Your task to perform on an android device: Open the calendar app, open the side menu, and click the "Day" option Image 0: 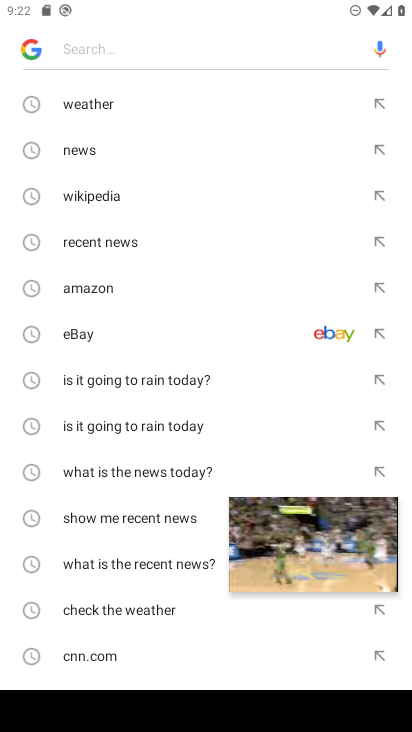
Step 0: press home button
Your task to perform on an android device: Open the calendar app, open the side menu, and click the "Day" option Image 1: 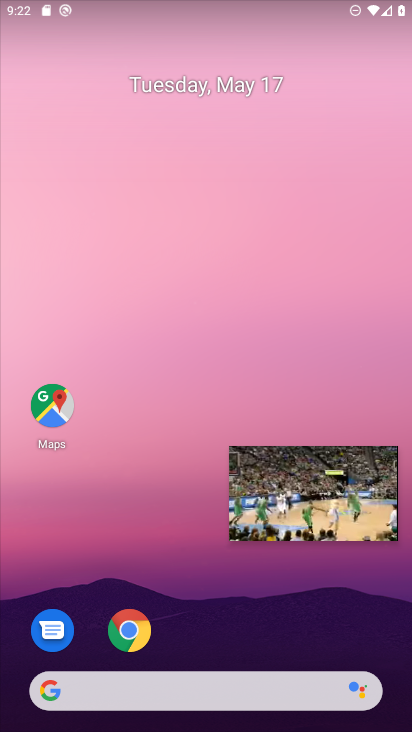
Step 1: drag from (304, 617) to (324, 164)
Your task to perform on an android device: Open the calendar app, open the side menu, and click the "Day" option Image 2: 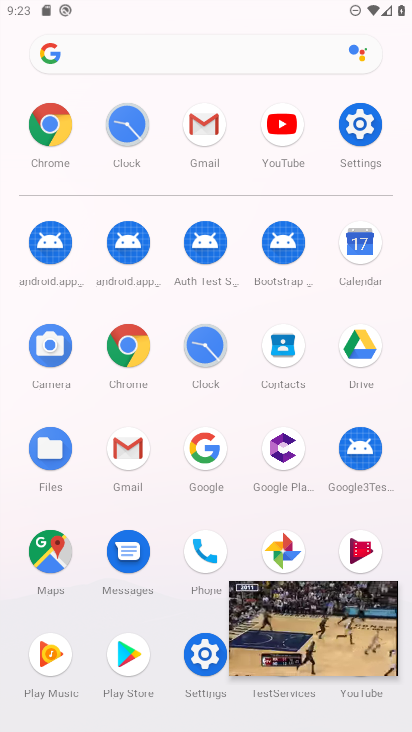
Step 2: click (370, 265)
Your task to perform on an android device: Open the calendar app, open the side menu, and click the "Day" option Image 3: 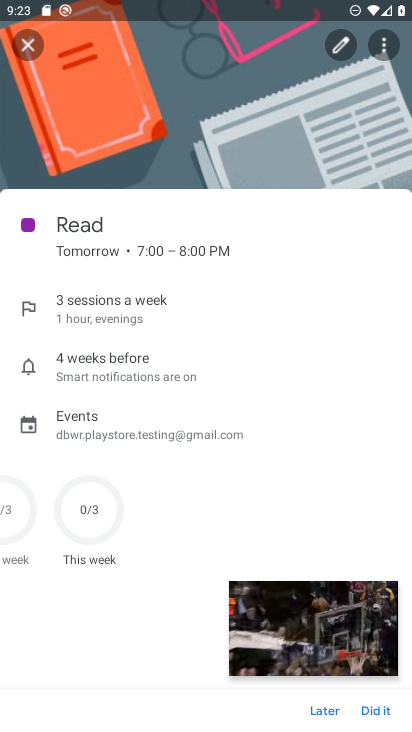
Step 3: click (30, 49)
Your task to perform on an android device: Open the calendar app, open the side menu, and click the "Day" option Image 4: 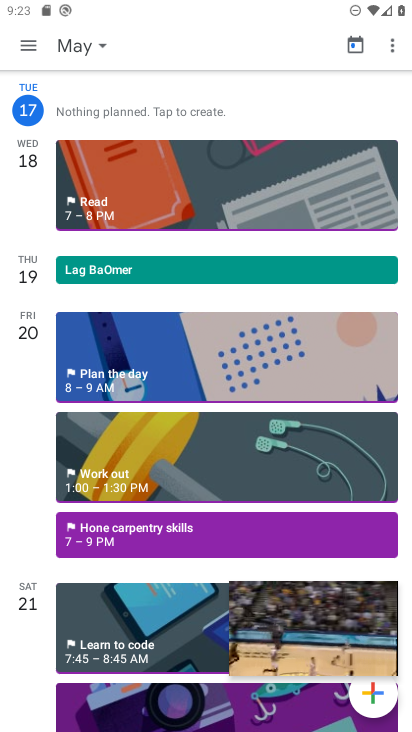
Step 4: click (28, 38)
Your task to perform on an android device: Open the calendar app, open the side menu, and click the "Day" option Image 5: 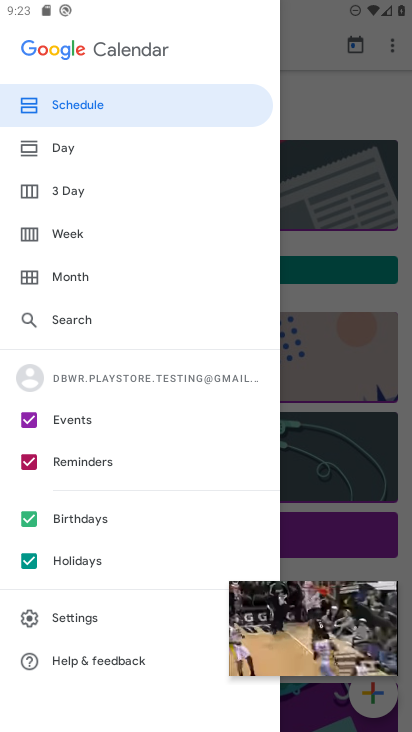
Step 5: drag from (154, 478) to (163, 333)
Your task to perform on an android device: Open the calendar app, open the side menu, and click the "Day" option Image 6: 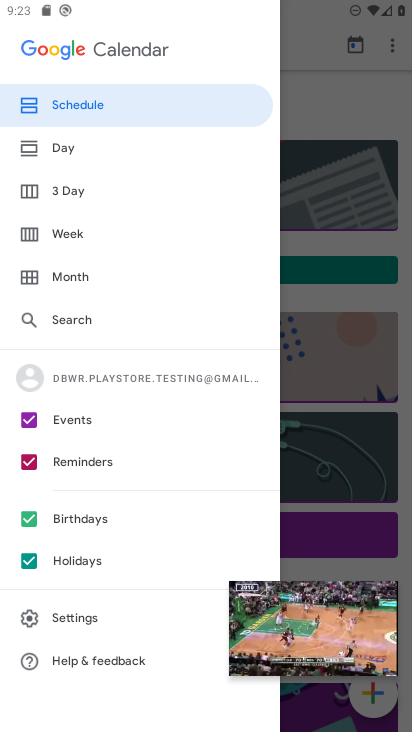
Step 6: drag from (166, 231) to (158, 418)
Your task to perform on an android device: Open the calendar app, open the side menu, and click the "Day" option Image 7: 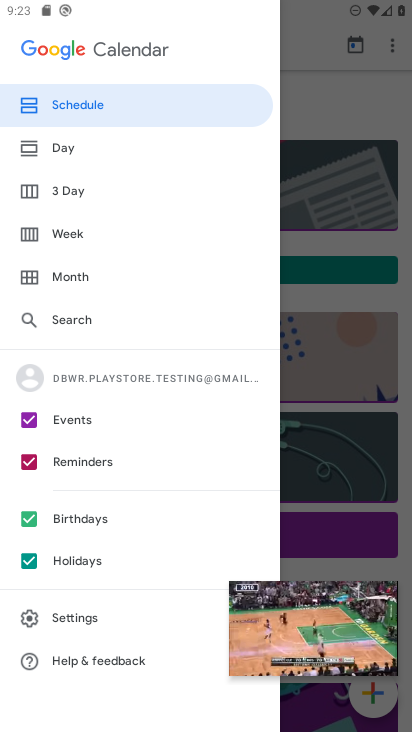
Step 7: click (68, 150)
Your task to perform on an android device: Open the calendar app, open the side menu, and click the "Day" option Image 8: 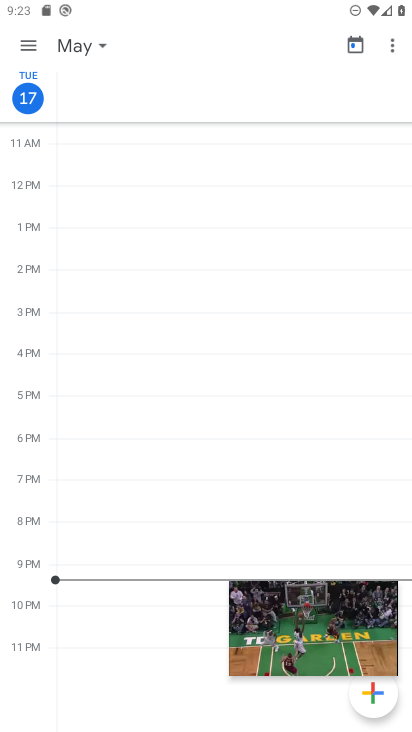
Step 8: task complete